Your task to perform on an android device: toggle sleep mode Image 0: 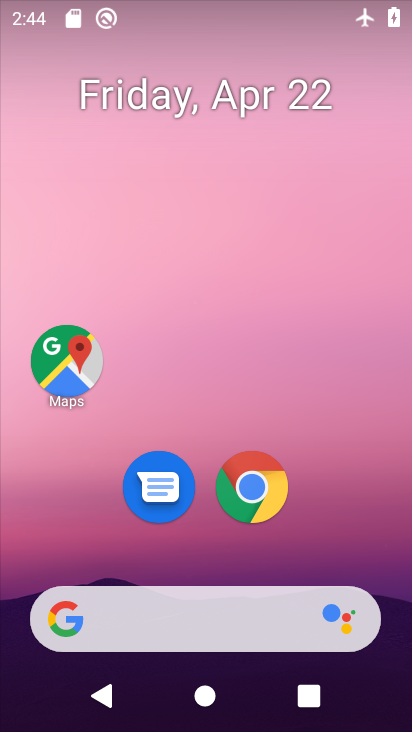
Step 0: drag from (197, 551) to (231, 276)
Your task to perform on an android device: toggle sleep mode Image 1: 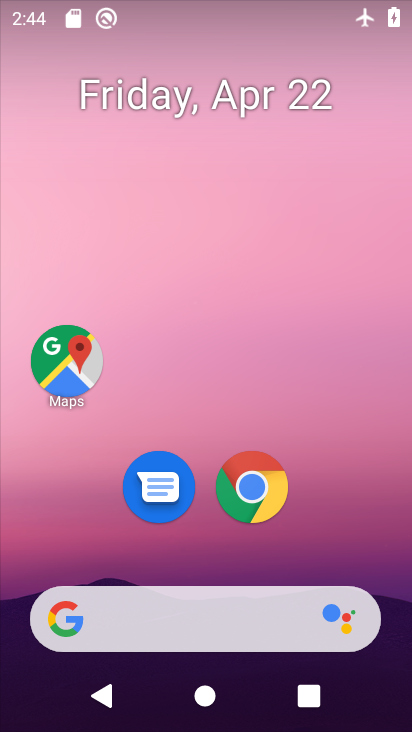
Step 1: drag from (198, 551) to (205, 213)
Your task to perform on an android device: toggle sleep mode Image 2: 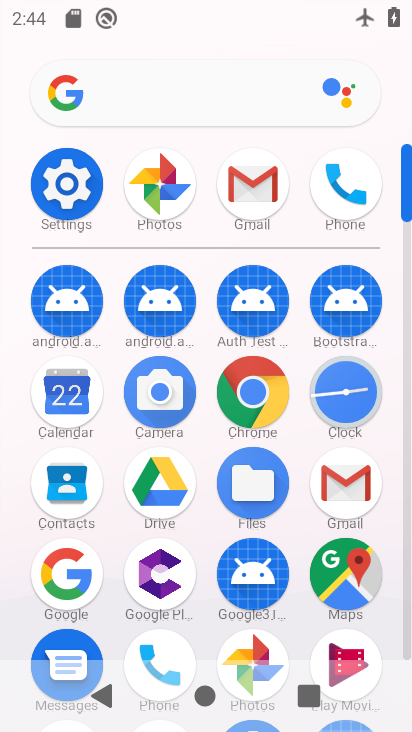
Step 2: click (68, 207)
Your task to perform on an android device: toggle sleep mode Image 3: 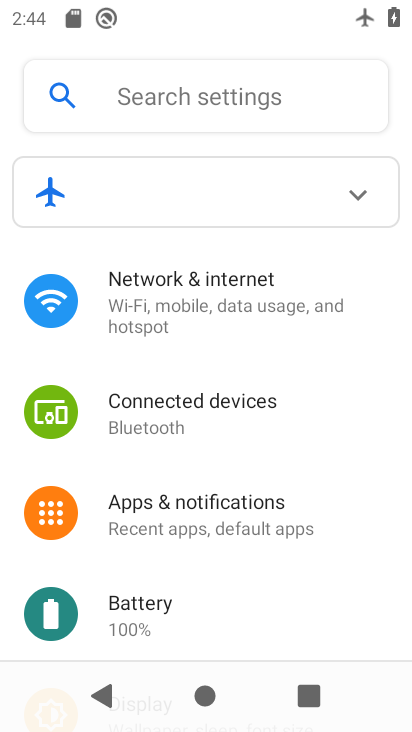
Step 3: task complete